Your task to perform on an android device: open chrome and create a bookmark for the current page Image 0: 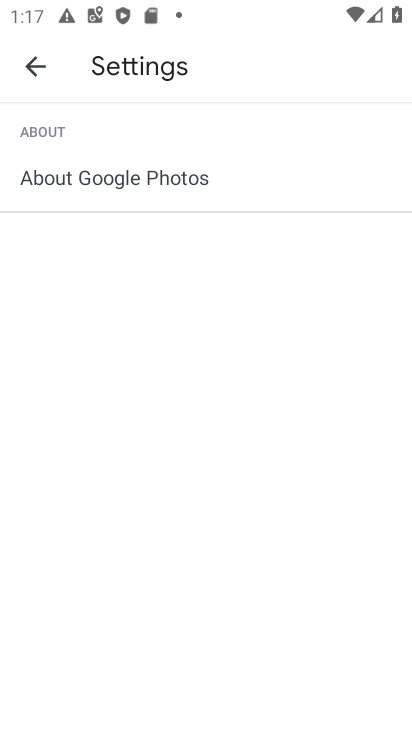
Step 0: press home button
Your task to perform on an android device: open chrome and create a bookmark for the current page Image 1: 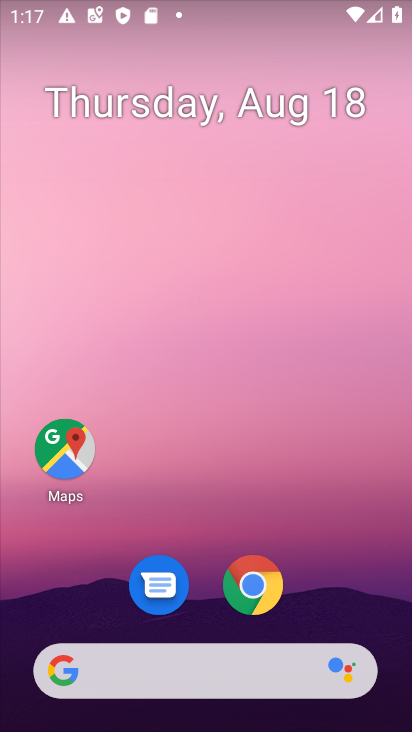
Step 1: click (255, 585)
Your task to perform on an android device: open chrome and create a bookmark for the current page Image 2: 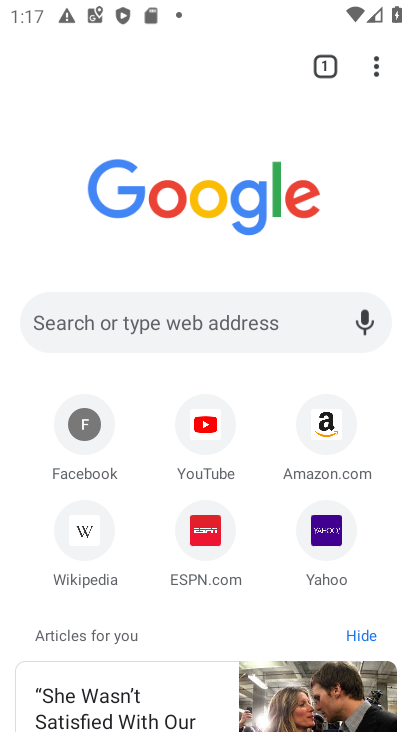
Step 2: click (376, 70)
Your task to perform on an android device: open chrome and create a bookmark for the current page Image 3: 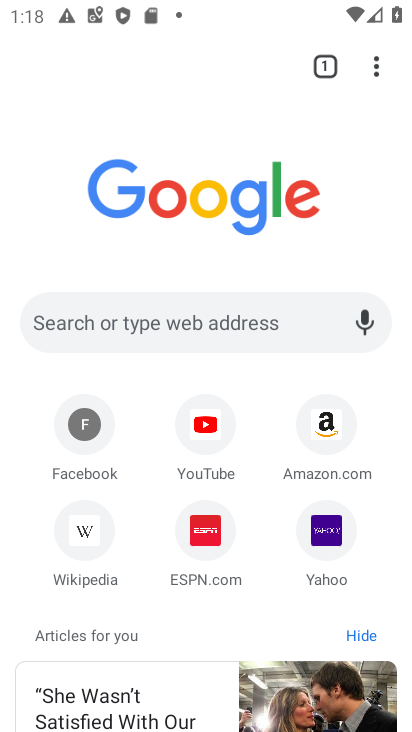
Step 3: click (376, 71)
Your task to perform on an android device: open chrome and create a bookmark for the current page Image 4: 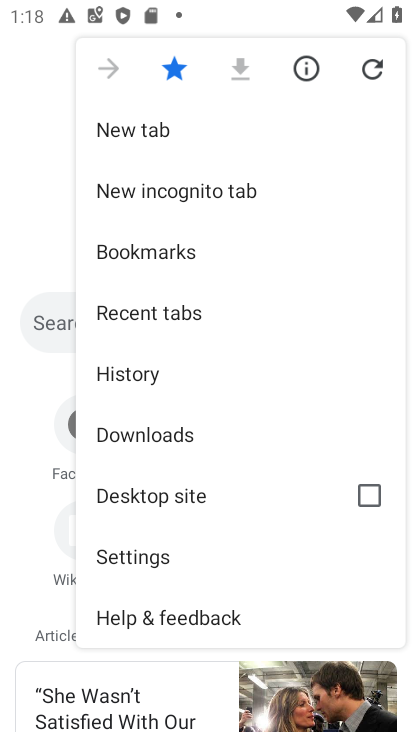
Step 4: task complete